Your task to perform on an android device: Add amazon basics triple a to the cart on walmart.com Image 0: 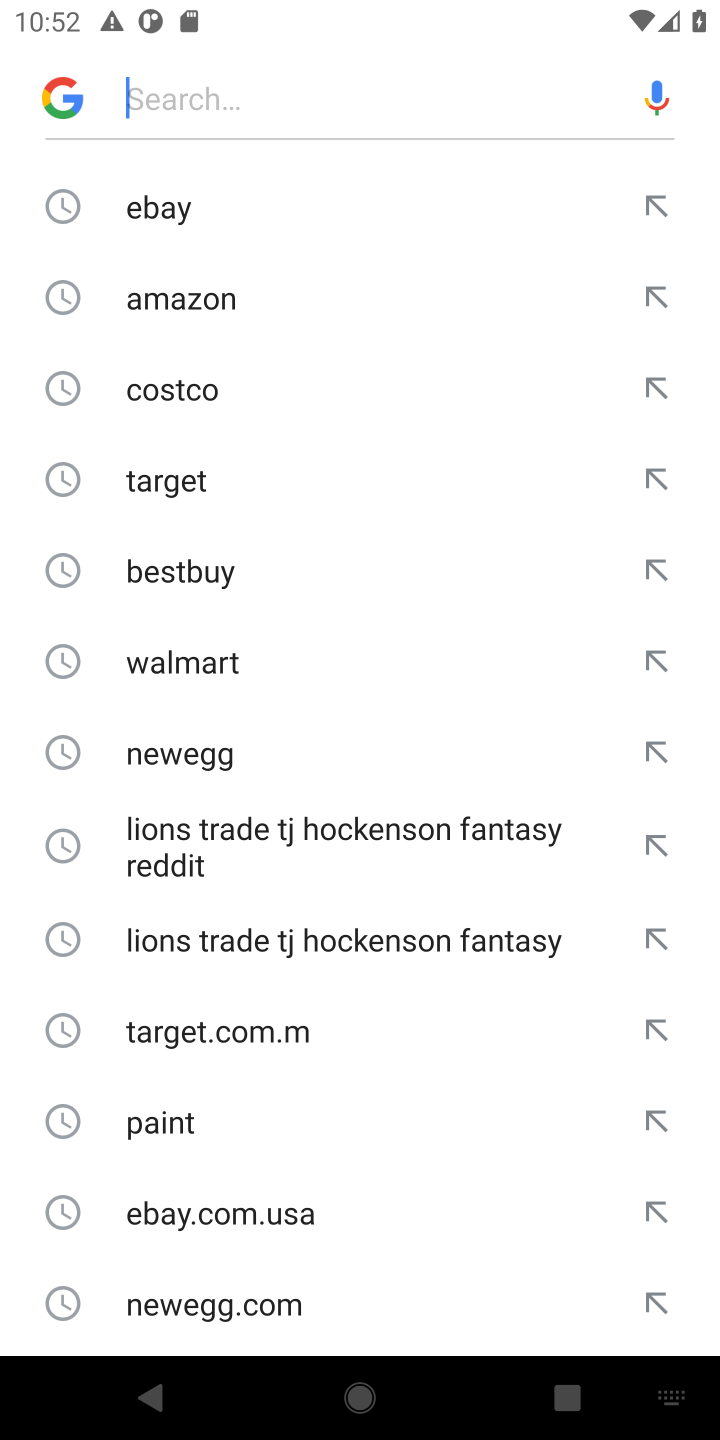
Step 0: press home button
Your task to perform on an android device: Add amazon basics triple a to the cart on walmart.com Image 1: 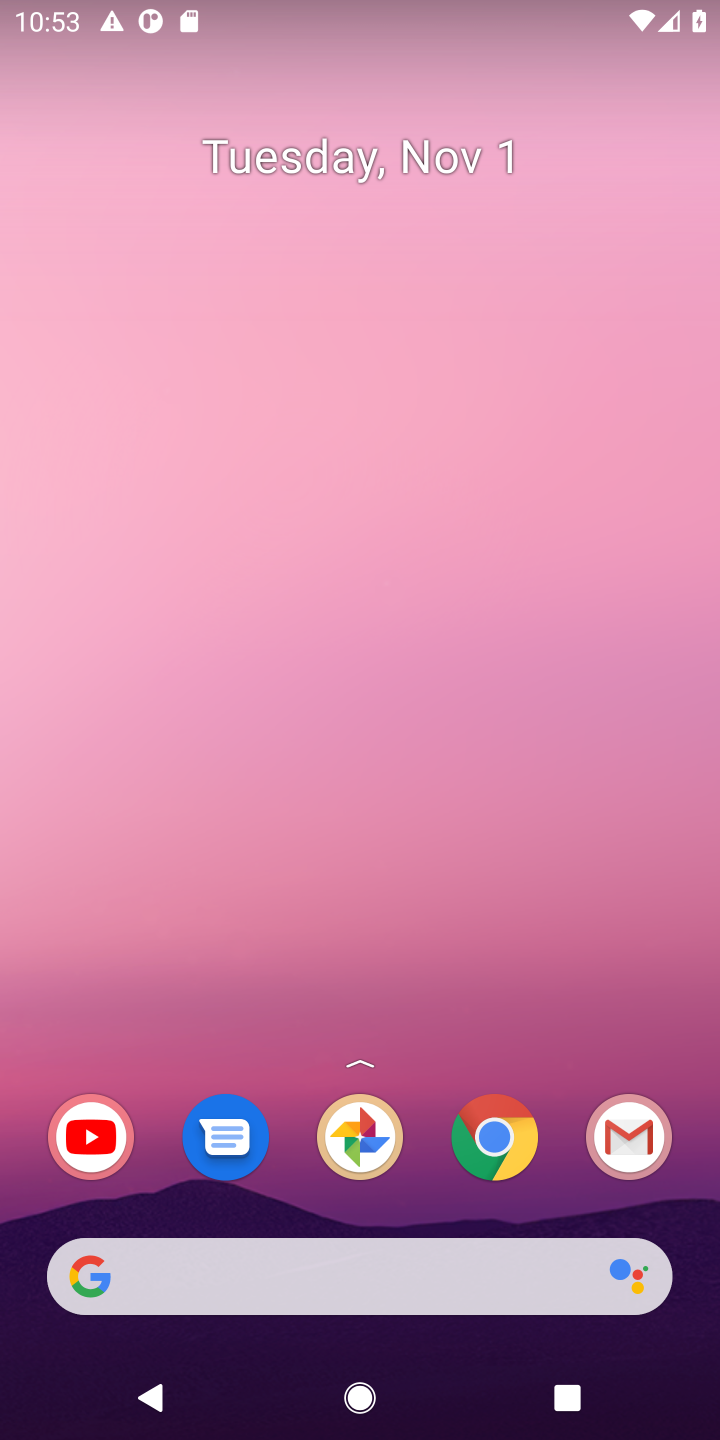
Step 1: click (402, 1303)
Your task to perform on an android device: Add amazon basics triple a to the cart on walmart.com Image 2: 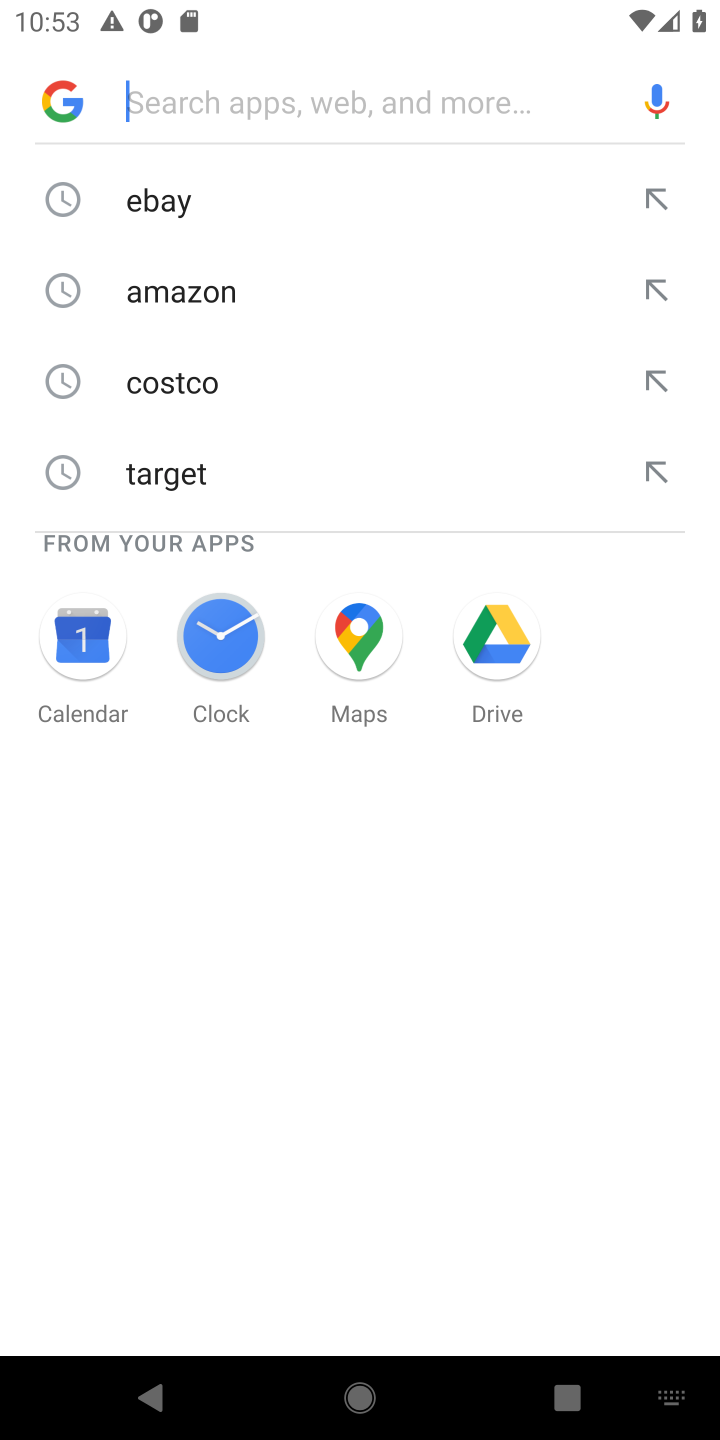
Step 2: type "walmart.com"
Your task to perform on an android device: Add amazon basics triple a to the cart on walmart.com Image 3: 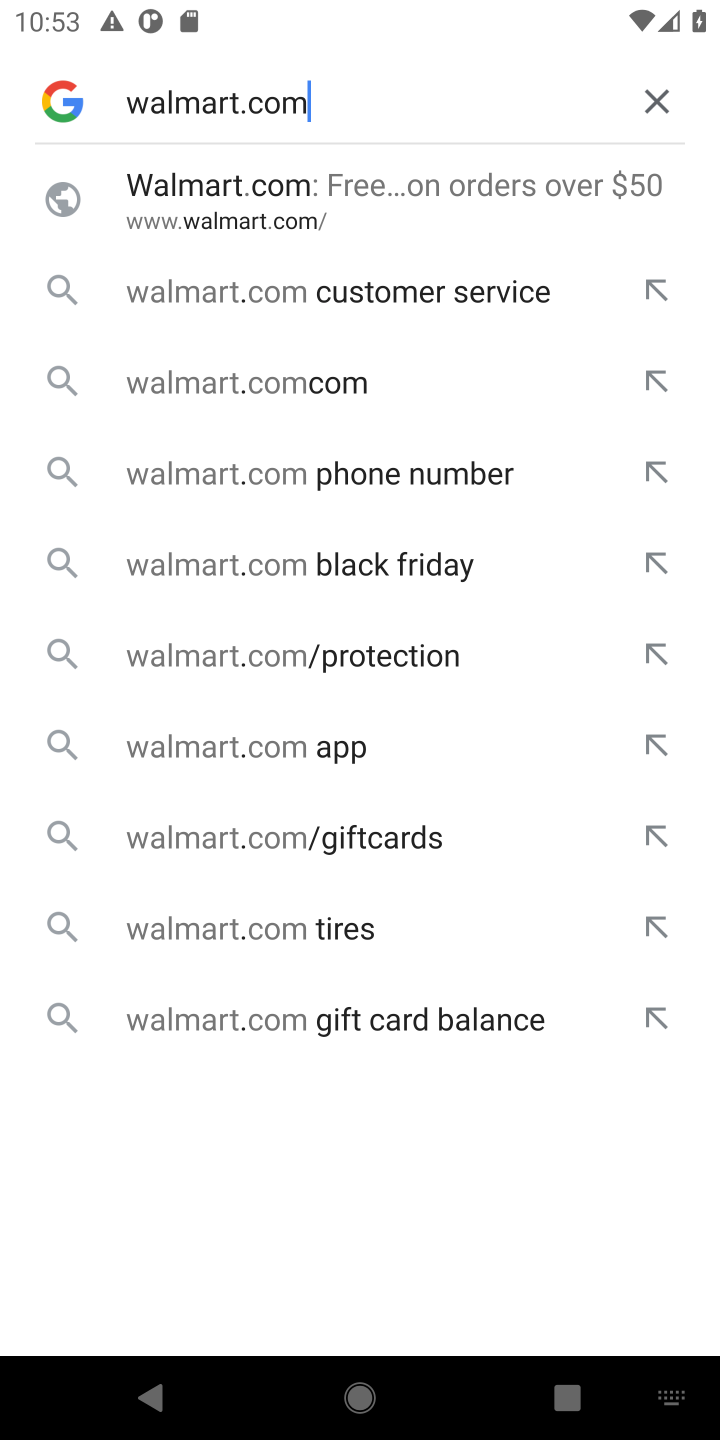
Step 3: click (241, 233)
Your task to perform on an android device: Add amazon basics triple a to the cart on walmart.com Image 4: 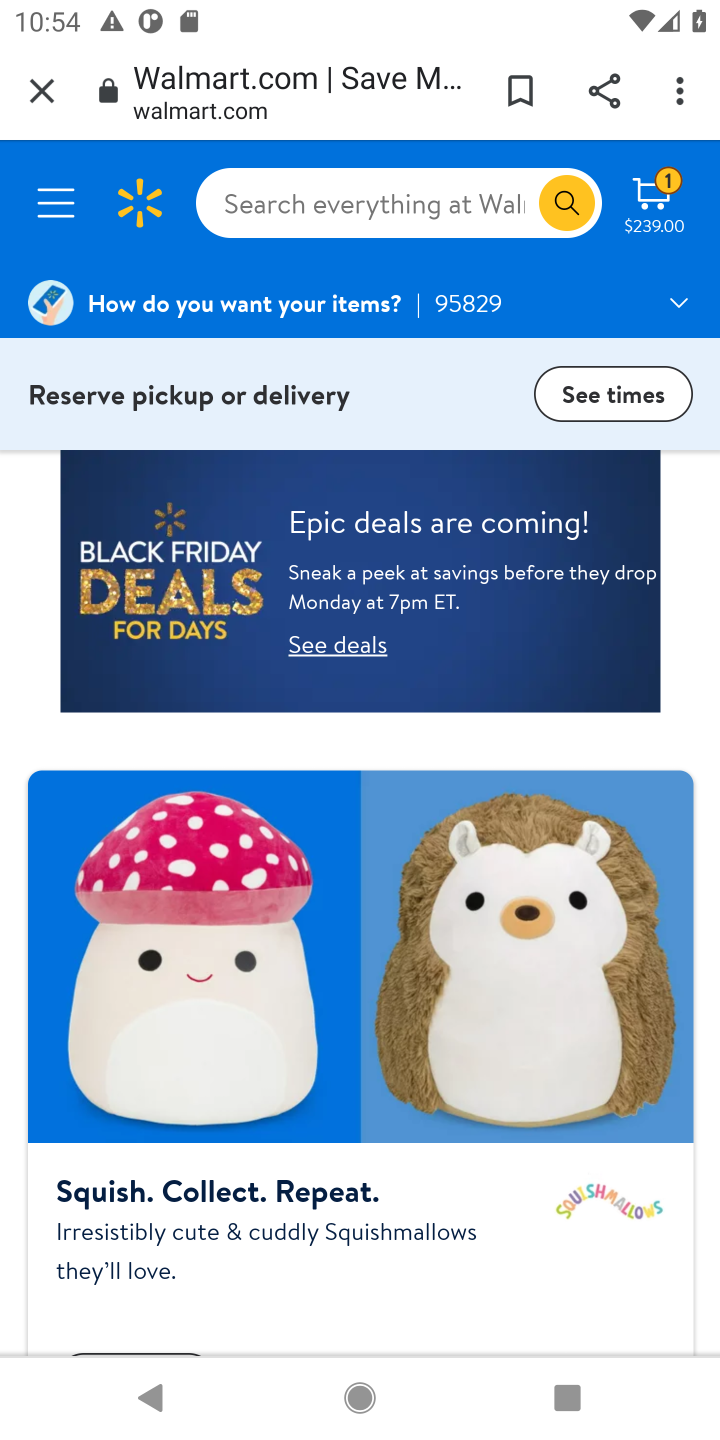
Step 4: click (370, 198)
Your task to perform on an android device: Add amazon basics triple a to the cart on walmart.com Image 5: 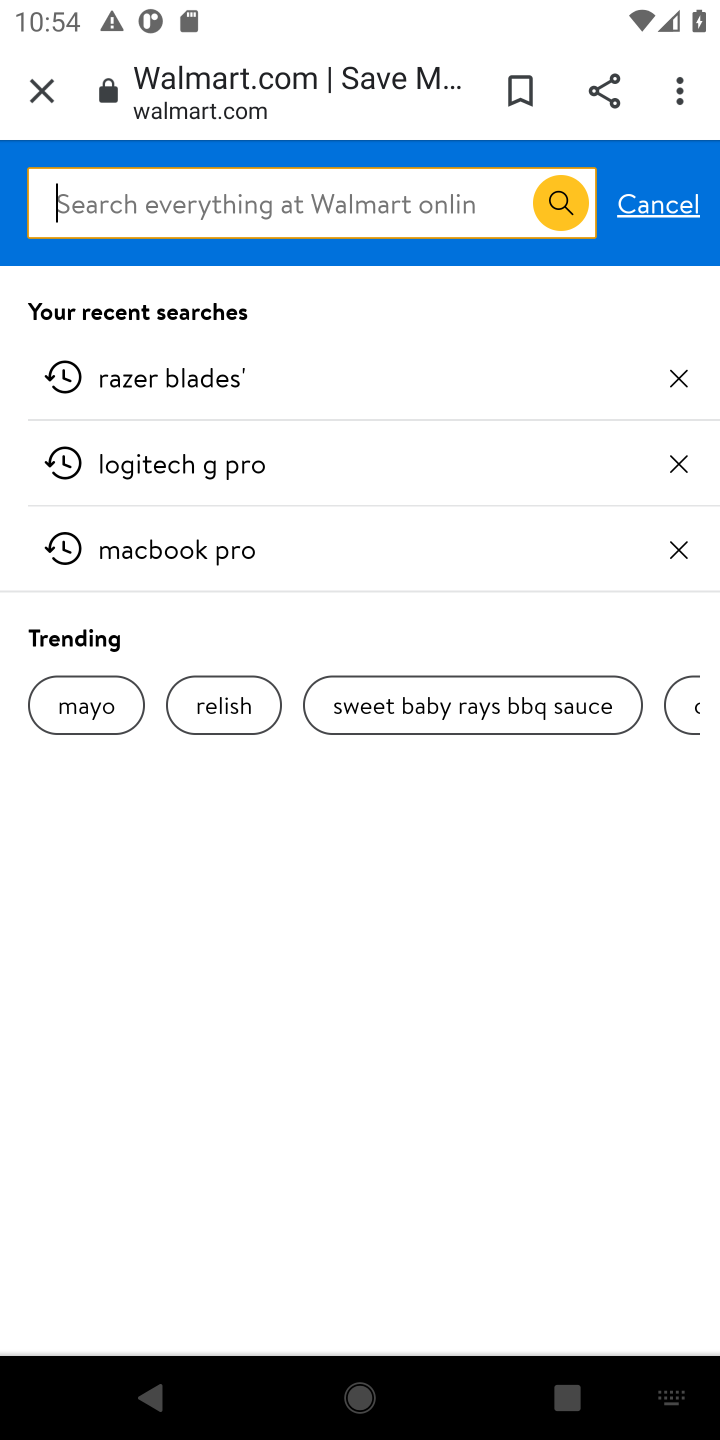
Step 5: type " basics triple a"
Your task to perform on an android device: Add amazon basics triple a to the cart on walmart.com Image 6: 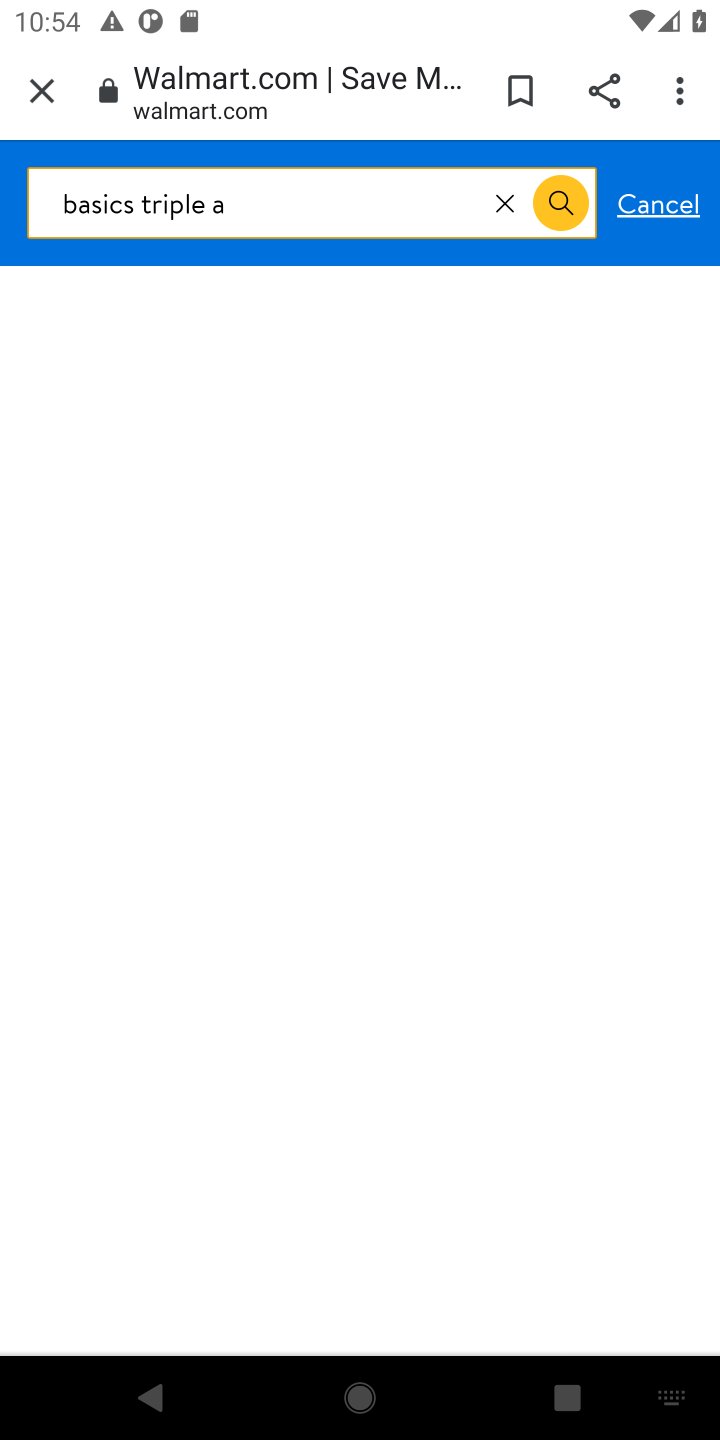
Step 6: task complete